Your task to perform on an android device: move an email to a new category in the gmail app Image 0: 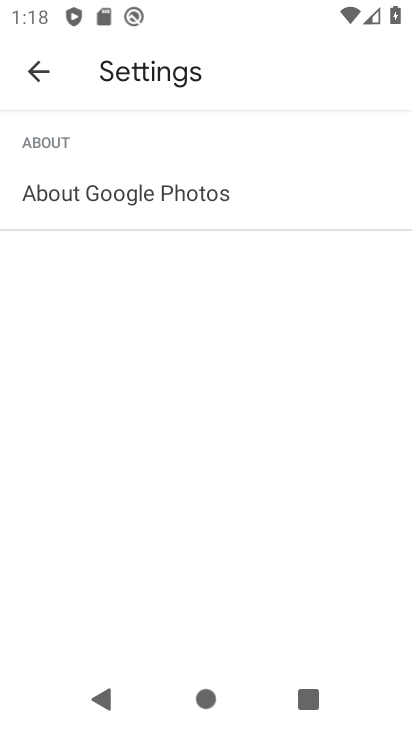
Step 0: press home button
Your task to perform on an android device: move an email to a new category in the gmail app Image 1: 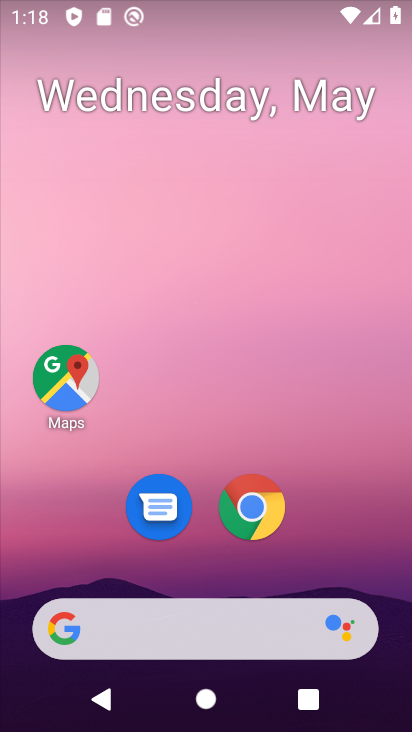
Step 1: drag from (364, 558) to (238, 174)
Your task to perform on an android device: move an email to a new category in the gmail app Image 2: 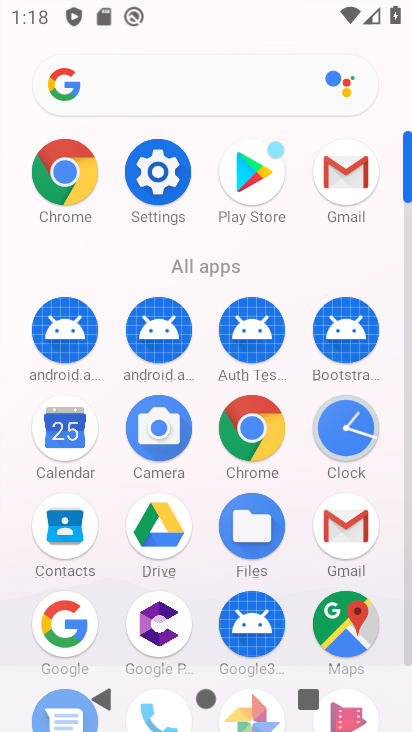
Step 2: click (362, 183)
Your task to perform on an android device: move an email to a new category in the gmail app Image 3: 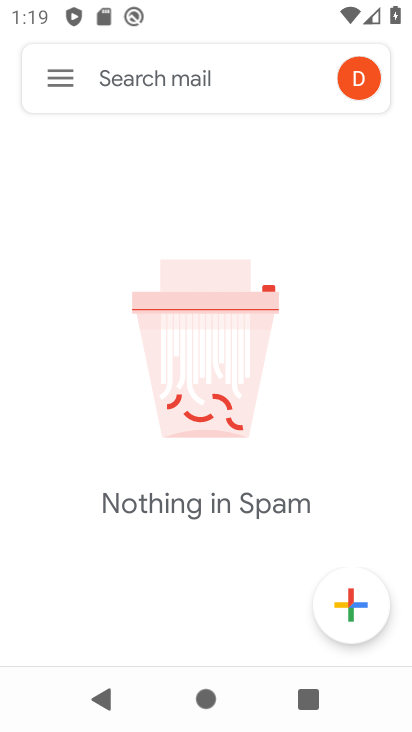
Step 3: click (63, 79)
Your task to perform on an android device: move an email to a new category in the gmail app Image 4: 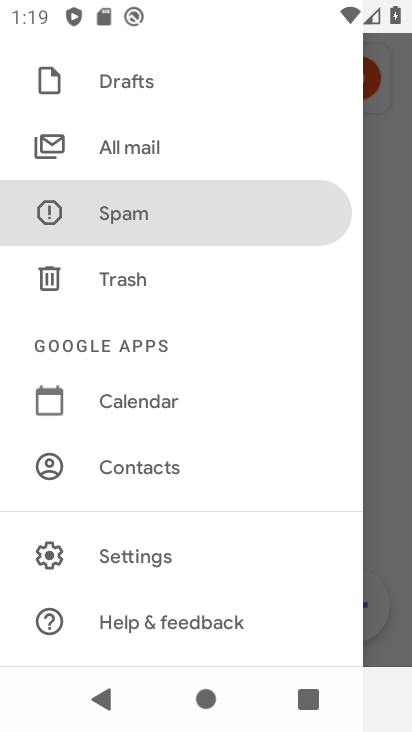
Step 4: click (155, 141)
Your task to perform on an android device: move an email to a new category in the gmail app Image 5: 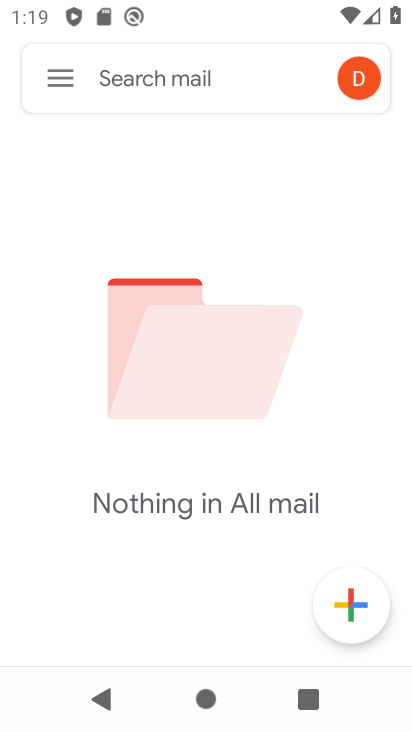
Step 5: task complete